Your task to perform on an android device: Toggle the flashlight Image 0: 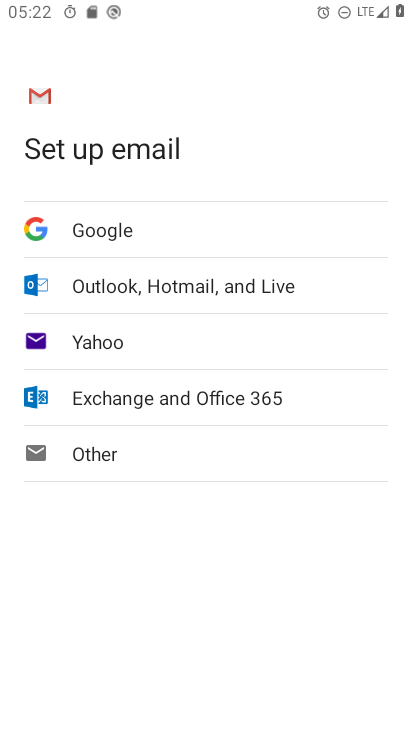
Step 0: press home button
Your task to perform on an android device: Toggle the flashlight Image 1: 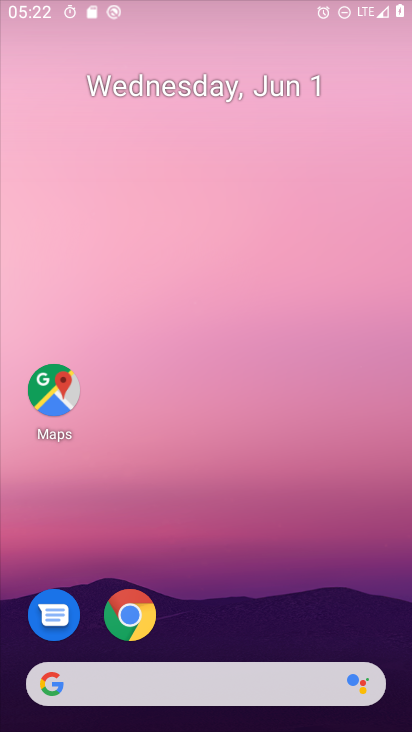
Step 1: task complete